Your task to perform on an android device: Go to Reddit.com Image 0: 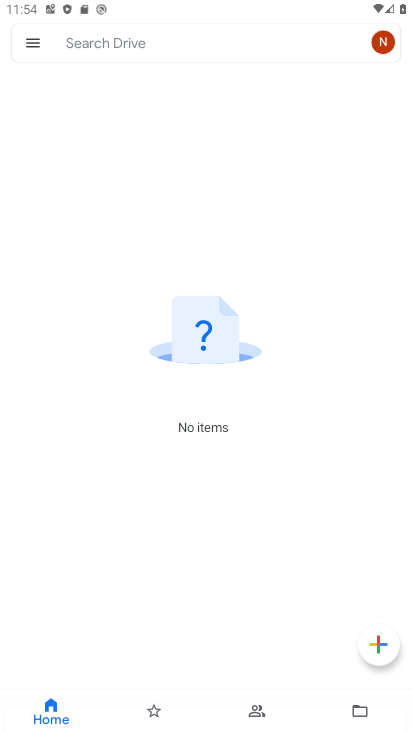
Step 0: press home button
Your task to perform on an android device: Go to Reddit.com Image 1: 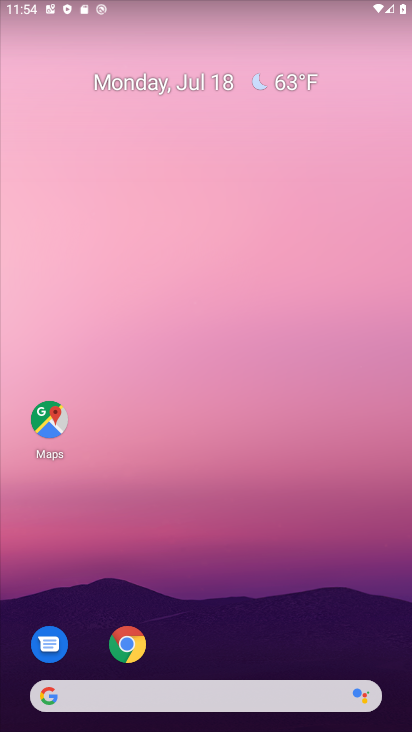
Step 1: drag from (222, 717) to (208, 285)
Your task to perform on an android device: Go to Reddit.com Image 2: 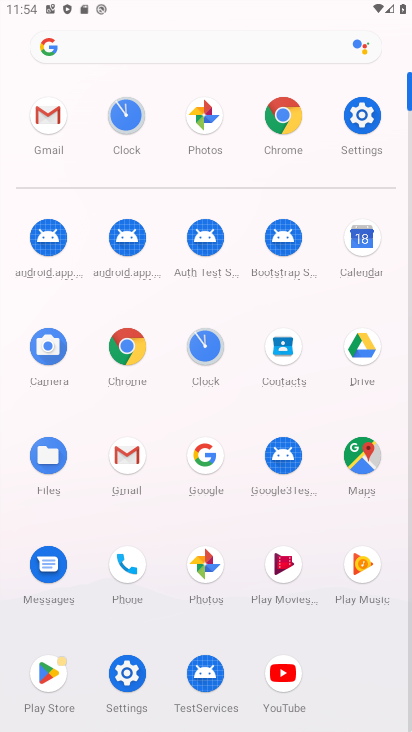
Step 2: click (285, 112)
Your task to perform on an android device: Go to Reddit.com Image 3: 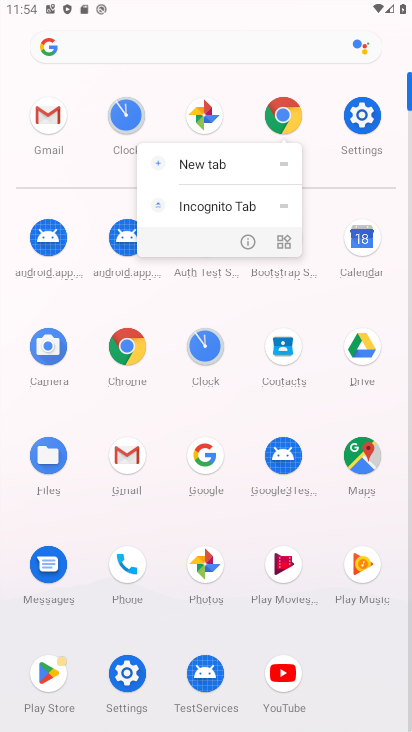
Step 3: click (274, 115)
Your task to perform on an android device: Go to Reddit.com Image 4: 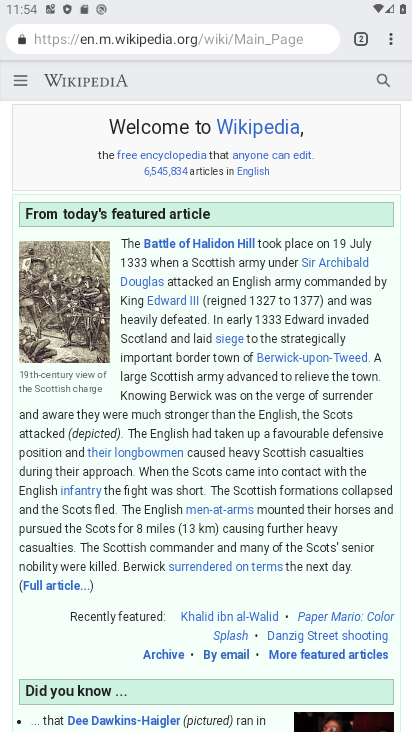
Step 4: click (391, 42)
Your task to perform on an android device: Go to Reddit.com Image 5: 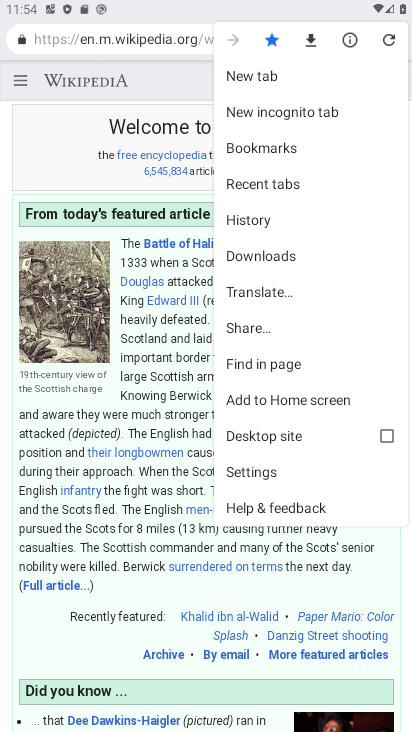
Step 5: click (257, 74)
Your task to perform on an android device: Go to Reddit.com Image 6: 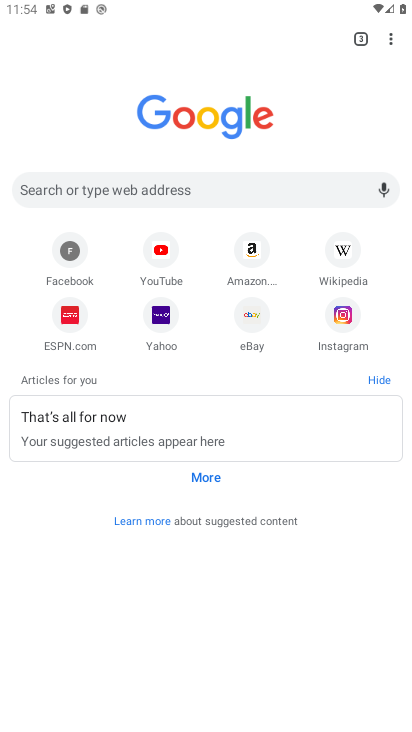
Step 6: click (240, 194)
Your task to perform on an android device: Go to Reddit.com Image 7: 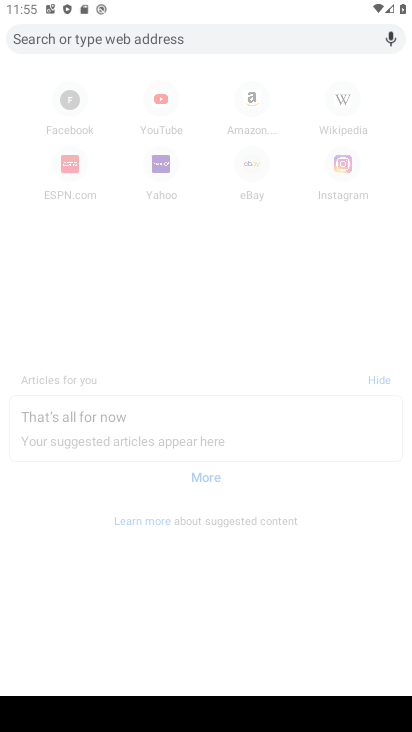
Step 7: type "Reddit.com"
Your task to perform on an android device: Go to Reddit.com Image 8: 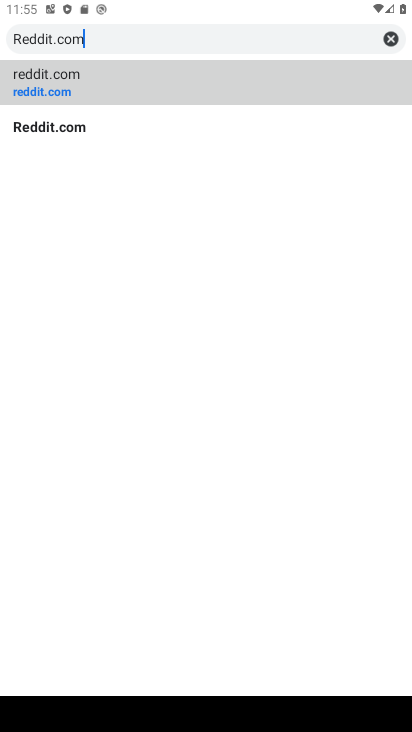
Step 8: type ""
Your task to perform on an android device: Go to Reddit.com Image 9: 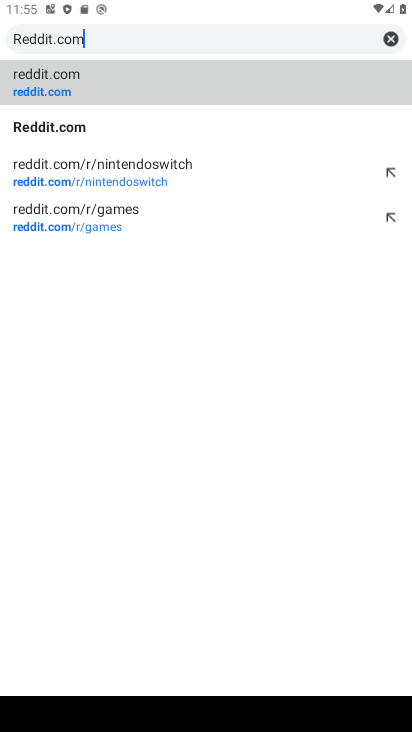
Step 9: click (60, 73)
Your task to perform on an android device: Go to Reddit.com Image 10: 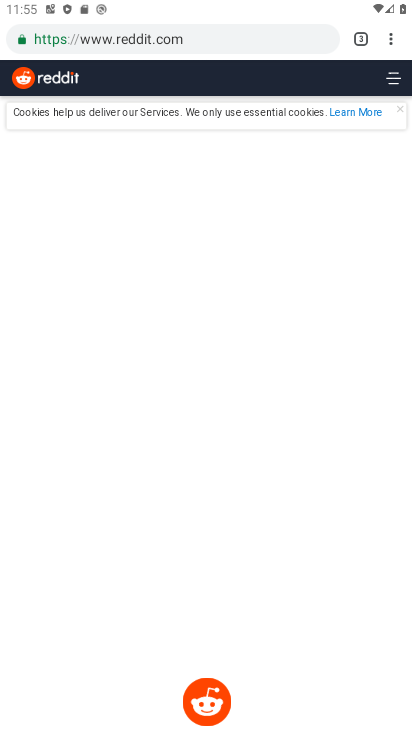
Step 10: task complete